Your task to perform on an android device: change the upload size in google photos Image 0: 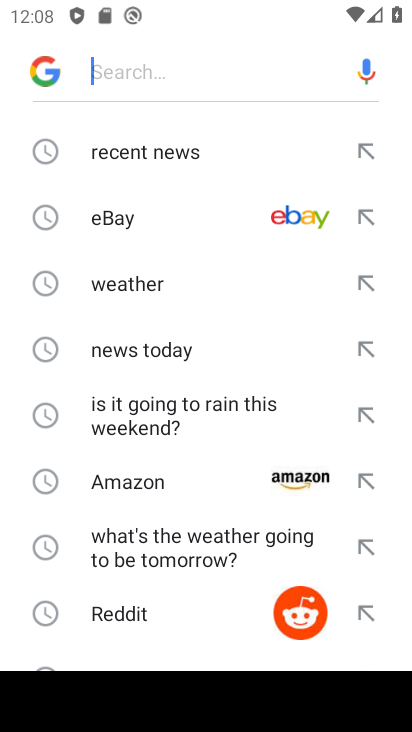
Step 0: press home button
Your task to perform on an android device: change the upload size in google photos Image 1: 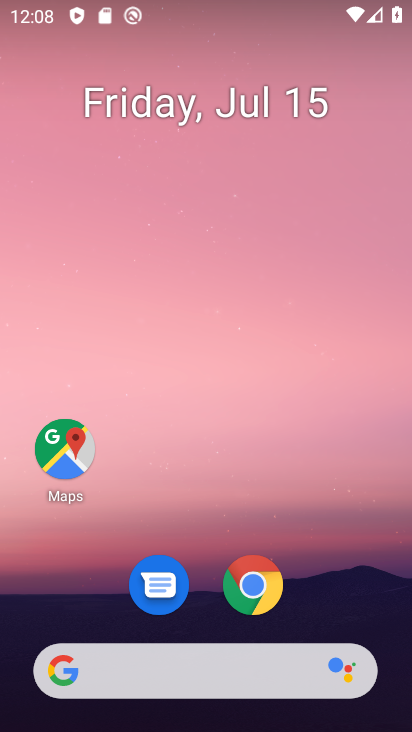
Step 1: drag from (174, 440) to (165, 78)
Your task to perform on an android device: change the upload size in google photos Image 2: 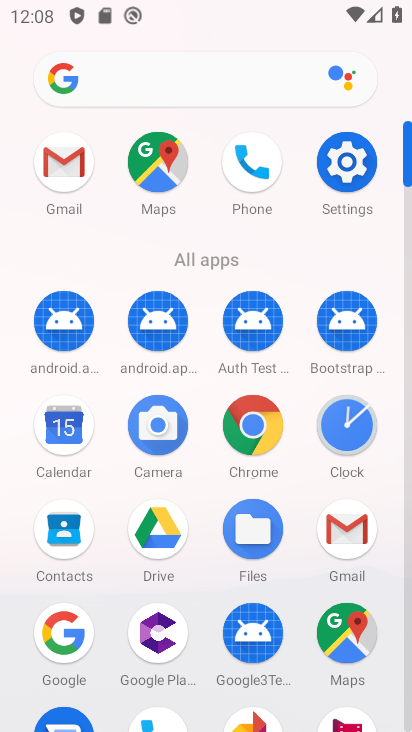
Step 2: drag from (219, 539) to (203, 156)
Your task to perform on an android device: change the upload size in google photos Image 3: 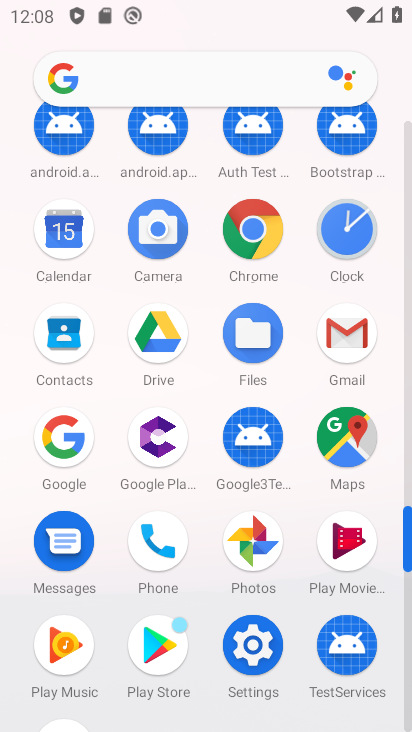
Step 3: click (253, 539)
Your task to perform on an android device: change the upload size in google photos Image 4: 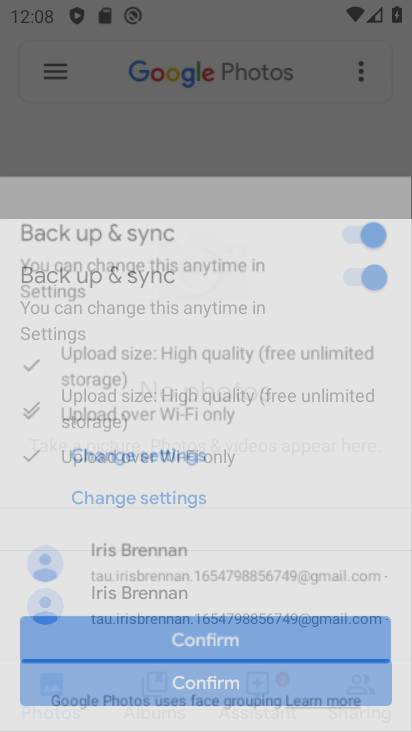
Step 4: click (385, 651)
Your task to perform on an android device: change the upload size in google photos Image 5: 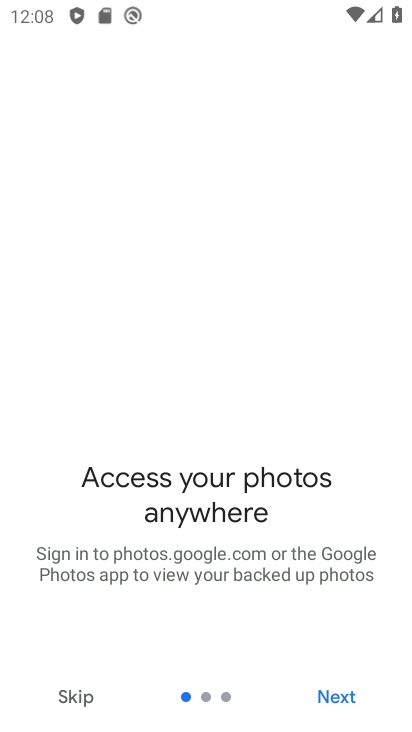
Step 5: click (328, 687)
Your task to perform on an android device: change the upload size in google photos Image 6: 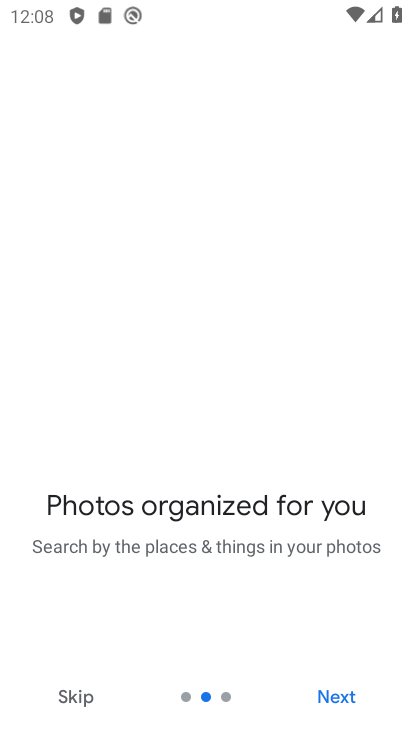
Step 6: click (334, 698)
Your task to perform on an android device: change the upload size in google photos Image 7: 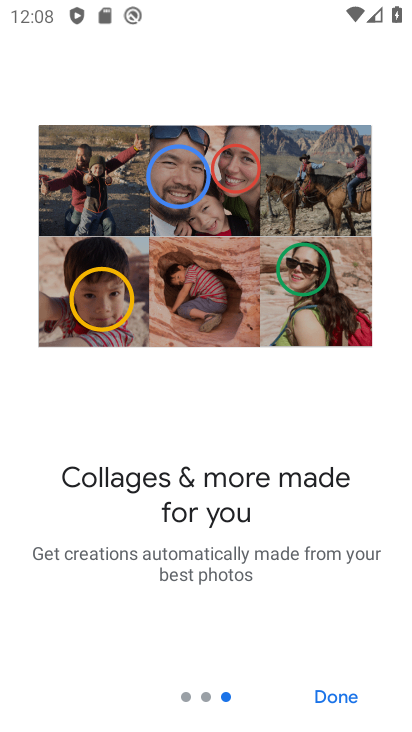
Step 7: click (334, 698)
Your task to perform on an android device: change the upload size in google photos Image 8: 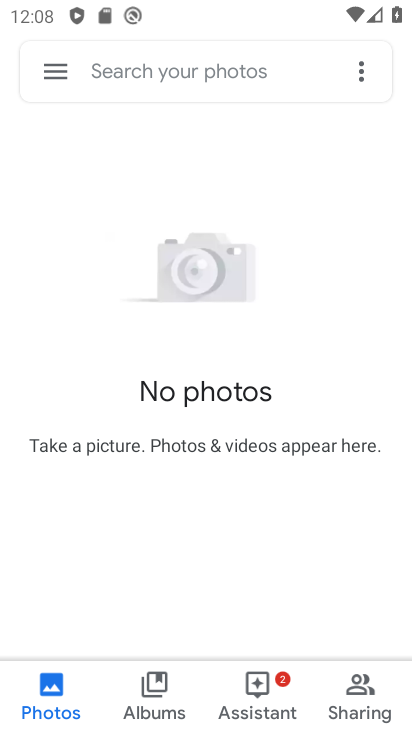
Step 8: click (65, 68)
Your task to perform on an android device: change the upload size in google photos Image 9: 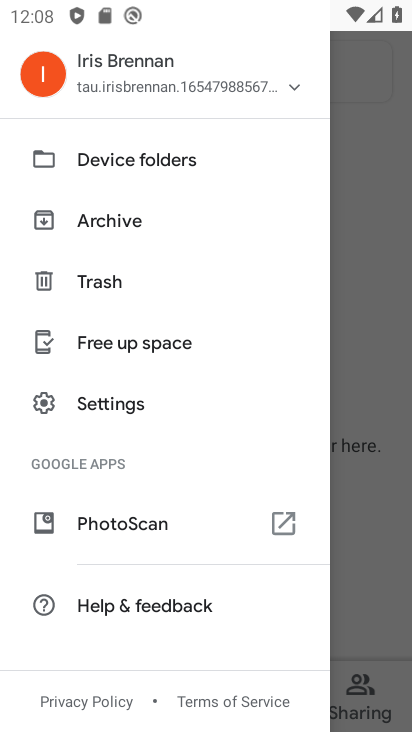
Step 9: click (86, 396)
Your task to perform on an android device: change the upload size in google photos Image 10: 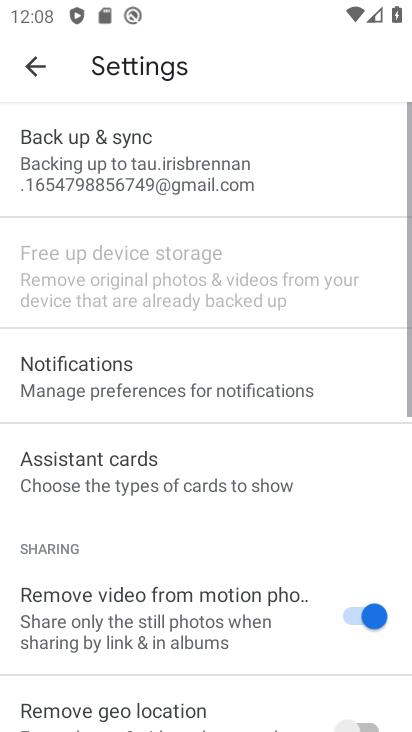
Step 10: click (139, 171)
Your task to perform on an android device: change the upload size in google photos Image 11: 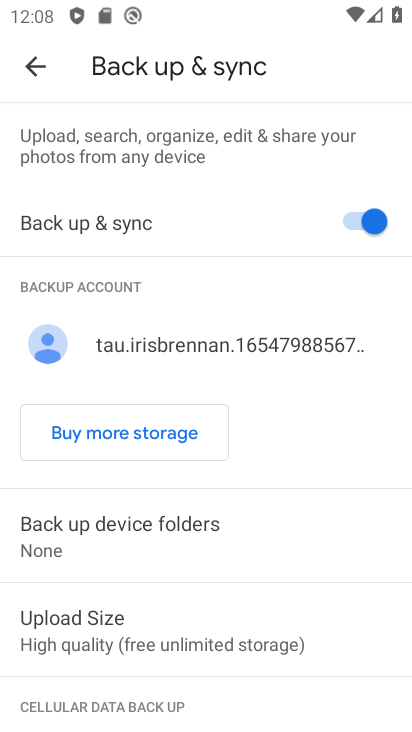
Step 11: click (161, 635)
Your task to perform on an android device: change the upload size in google photos Image 12: 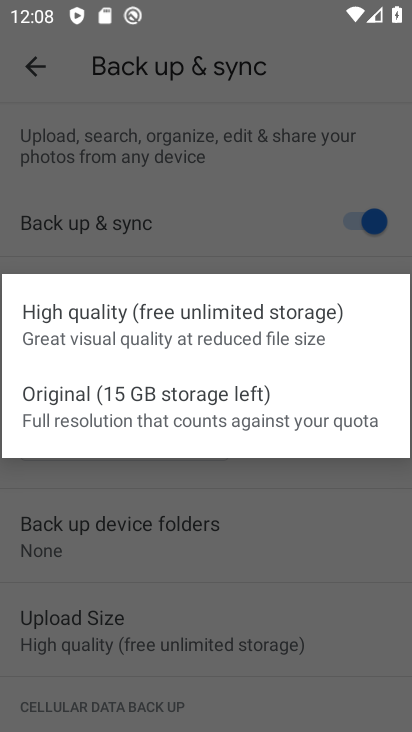
Step 12: click (195, 389)
Your task to perform on an android device: change the upload size in google photos Image 13: 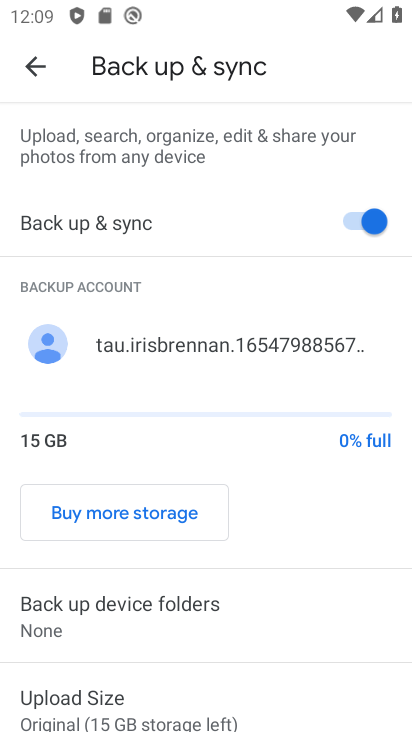
Step 13: task complete